Your task to perform on an android device: Open Chrome and go to the settings page Image 0: 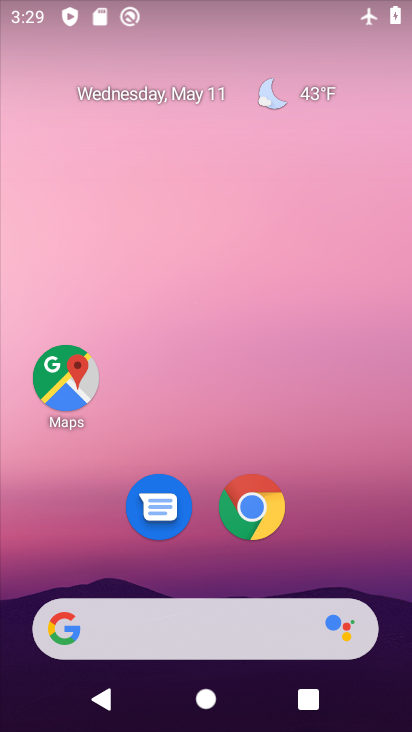
Step 0: click (249, 511)
Your task to perform on an android device: Open Chrome and go to the settings page Image 1: 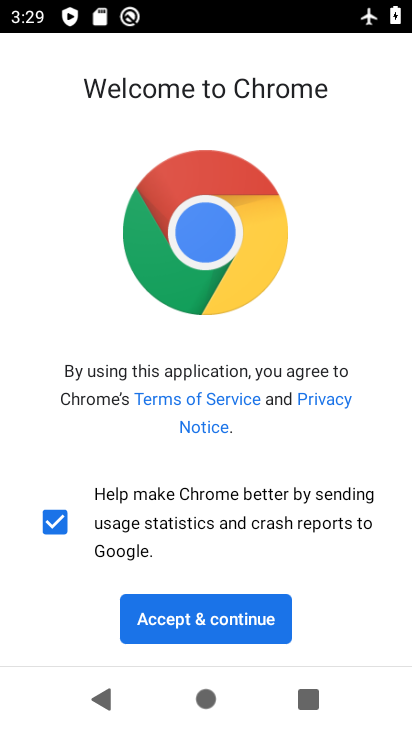
Step 1: click (191, 616)
Your task to perform on an android device: Open Chrome and go to the settings page Image 2: 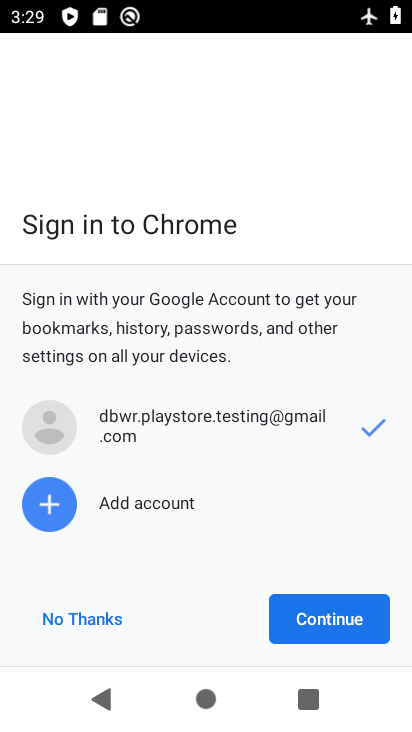
Step 2: click (338, 619)
Your task to perform on an android device: Open Chrome and go to the settings page Image 3: 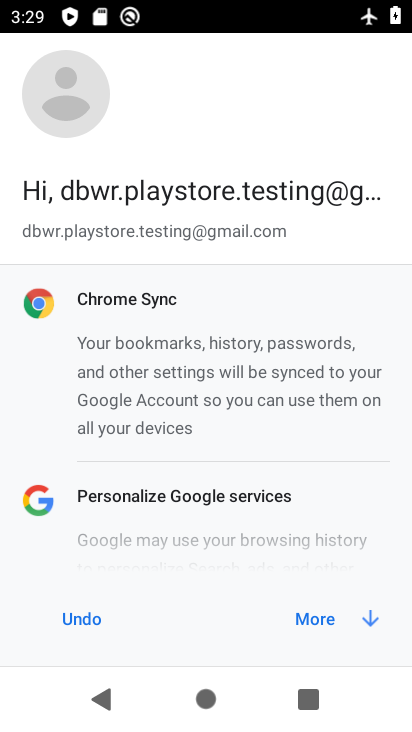
Step 3: click (325, 622)
Your task to perform on an android device: Open Chrome and go to the settings page Image 4: 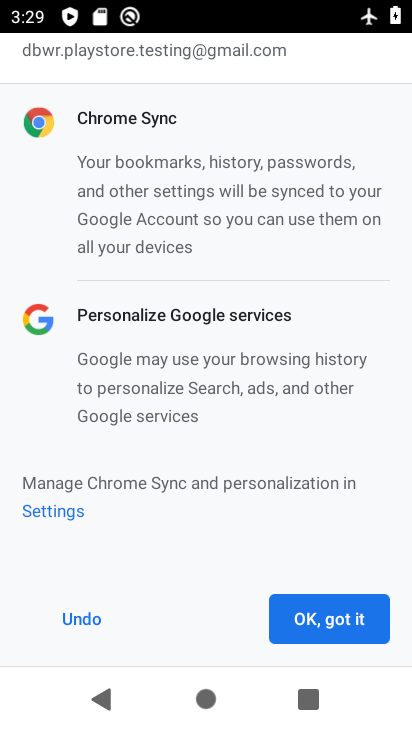
Step 4: click (325, 622)
Your task to perform on an android device: Open Chrome and go to the settings page Image 5: 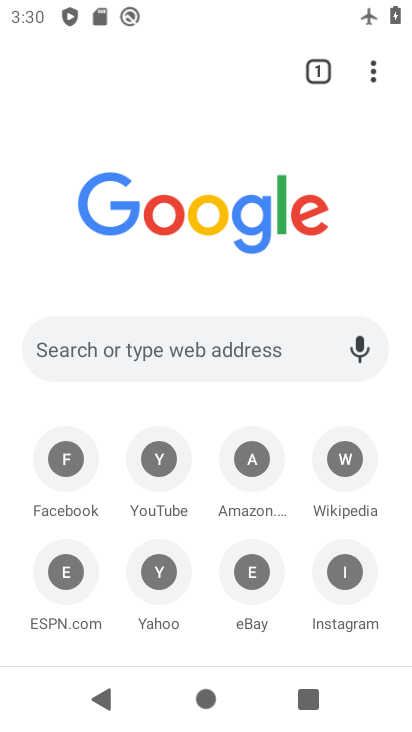
Step 5: click (371, 78)
Your task to perform on an android device: Open Chrome and go to the settings page Image 6: 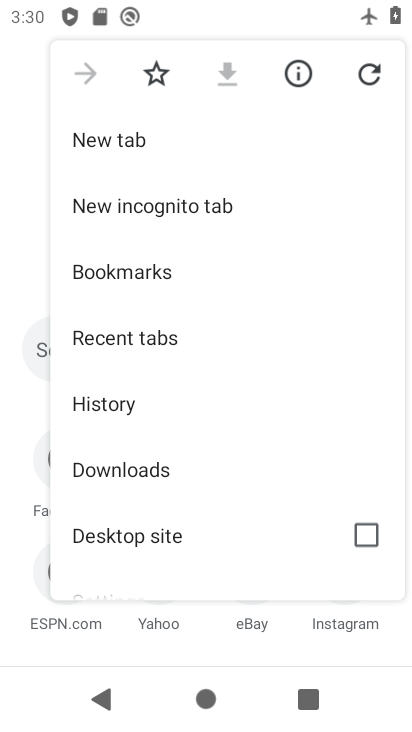
Step 6: drag from (196, 538) to (273, 121)
Your task to perform on an android device: Open Chrome and go to the settings page Image 7: 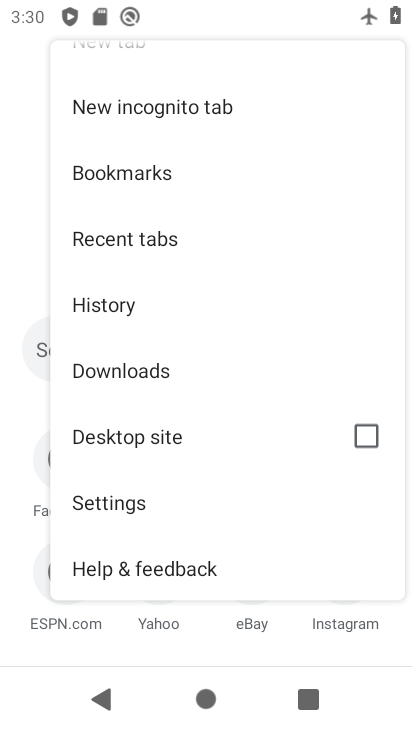
Step 7: click (137, 498)
Your task to perform on an android device: Open Chrome and go to the settings page Image 8: 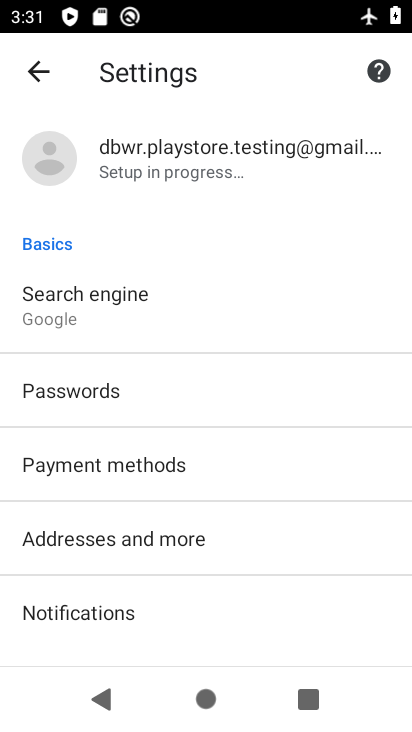
Step 8: task complete